Your task to perform on an android device: Open the Play Movies app and select the watchlist tab. Image 0: 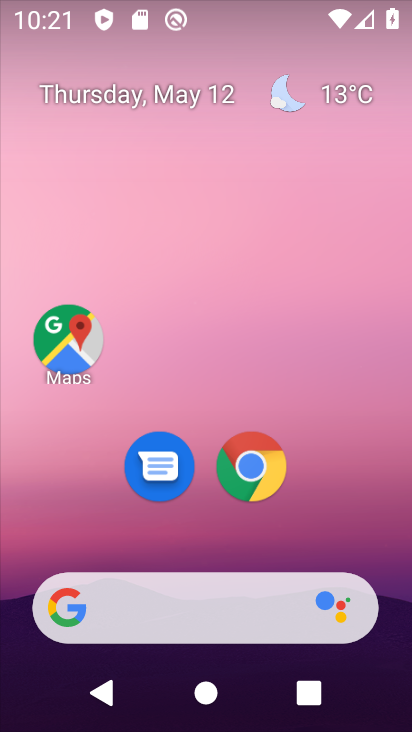
Step 0: drag from (200, 527) to (255, 65)
Your task to perform on an android device: Open the Play Movies app and select the watchlist tab. Image 1: 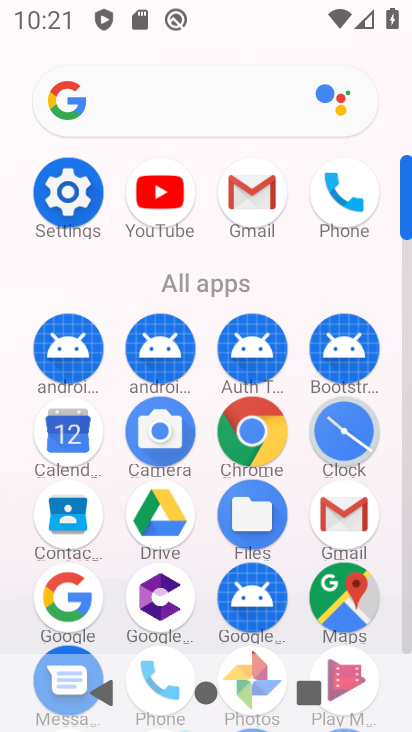
Step 1: drag from (258, 540) to (315, 110)
Your task to perform on an android device: Open the Play Movies app and select the watchlist tab. Image 2: 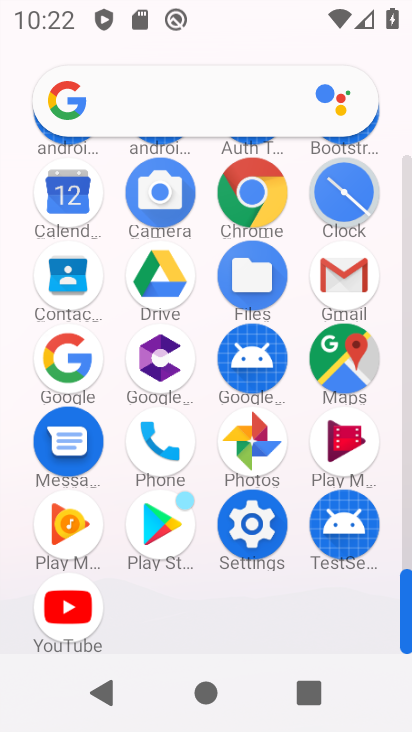
Step 2: click (348, 462)
Your task to perform on an android device: Open the Play Movies app and select the watchlist tab. Image 3: 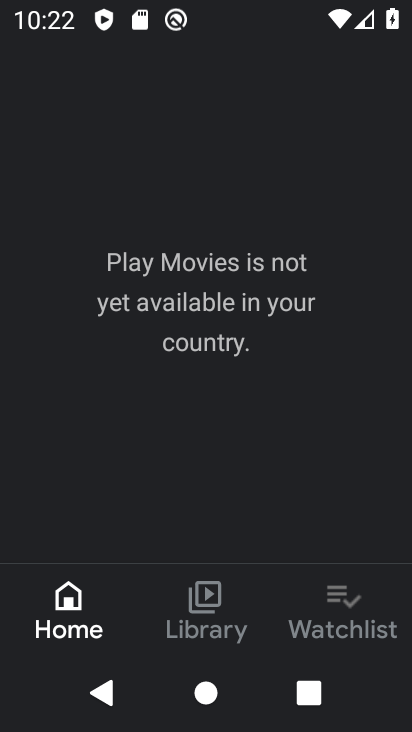
Step 3: click (328, 609)
Your task to perform on an android device: Open the Play Movies app and select the watchlist tab. Image 4: 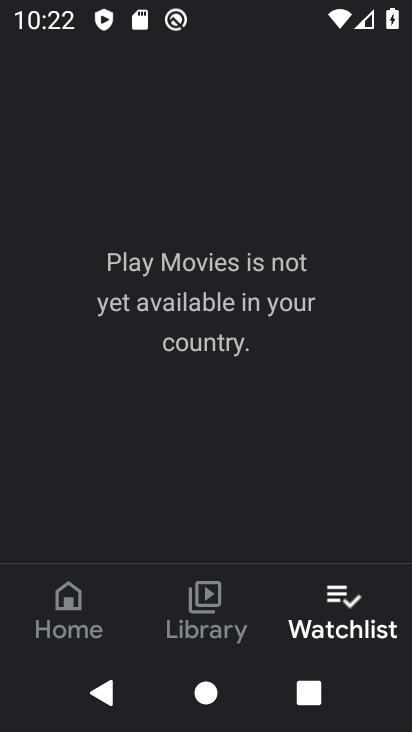
Step 4: task complete